Your task to perform on an android device: Play the last video I watched on Youtube Image 0: 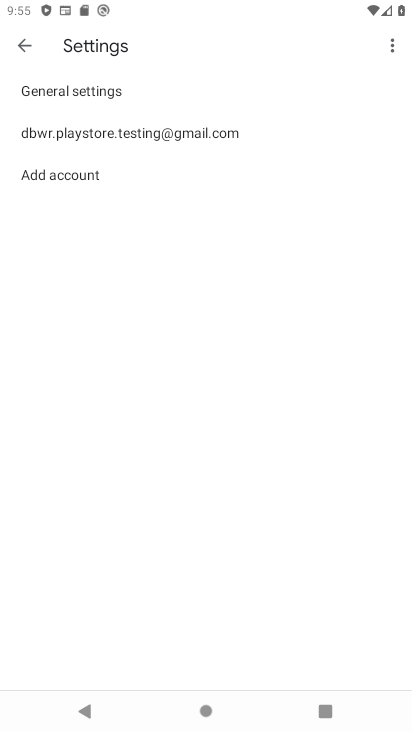
Step 0: press home button
Your task to perform on an android device: Play the last video I watched on Youtube Image 1: 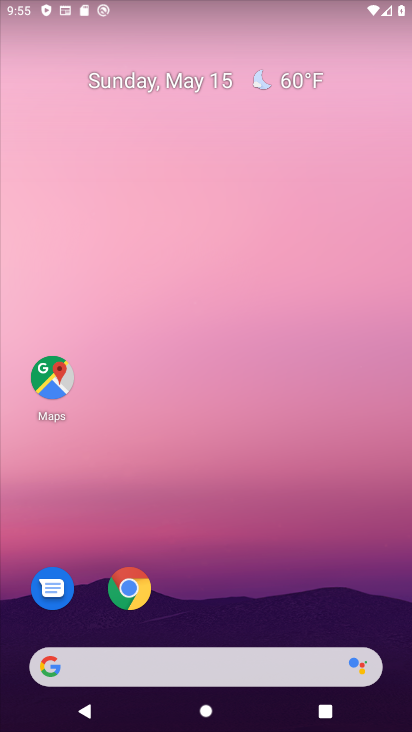
Step 1: drag from (218, 631) to (230, 135)
Your task to perform on an android device: Play the last video I watched on Youtube Image 2: 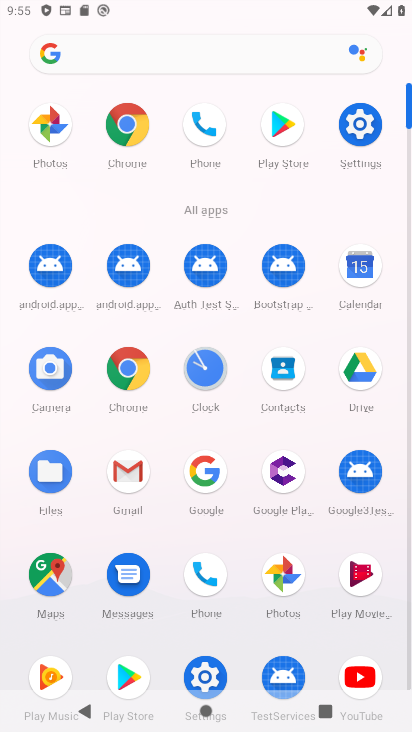
Step 2: click (368, 683)
Your task to perform on an android device: Play the last video I watched on Youtube Image 3: 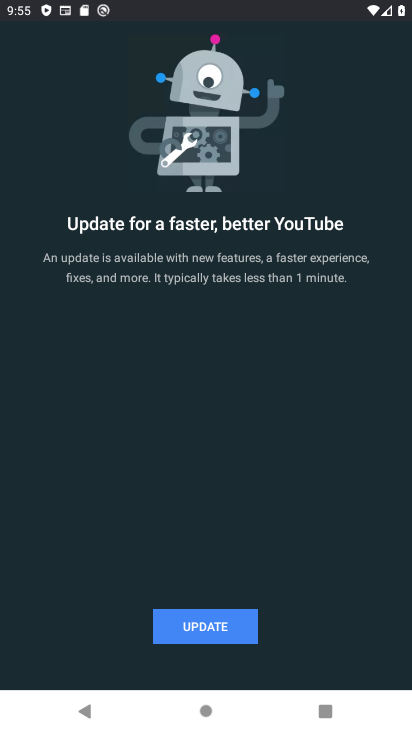
Step 3: click (200, 628)
Your task to perform on an android device: Play the last video I watched on Youtube Image 4: 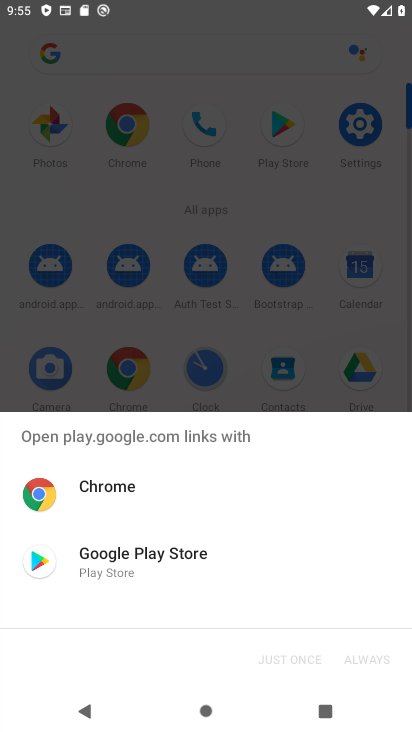
Step 4: click (231, 549)
Your task to perform on an android device: Play the last video I watched on Youtube Image 5: 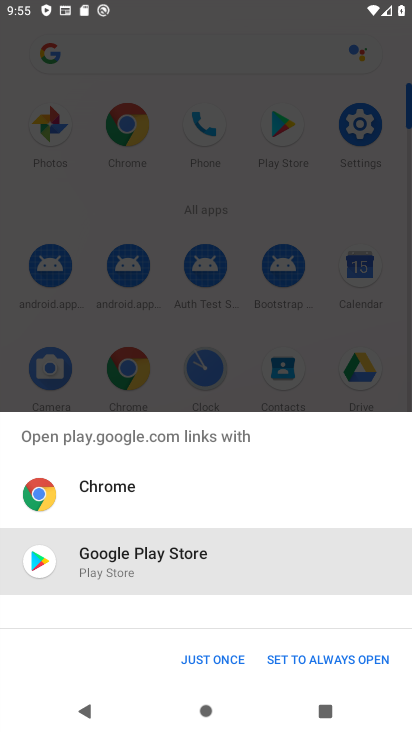
Step 5: click (221, 658)
Your task to perform on an android device: Play the last video I watched on Youtube Image 6: 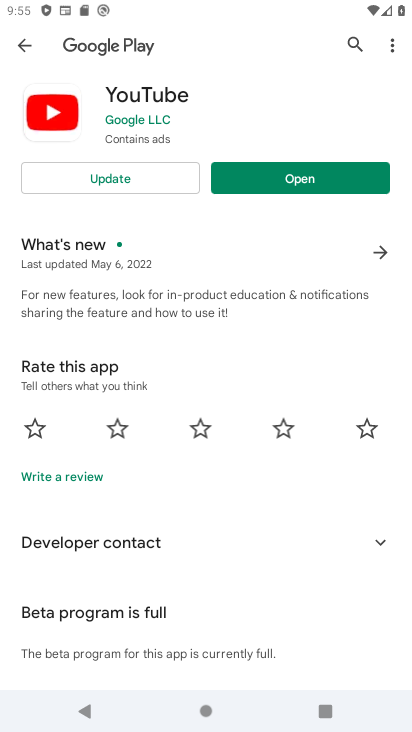
Step 6: click (161, 169)
Your task to perform on an android device: Play the last video I watched on Youtube Image 7: 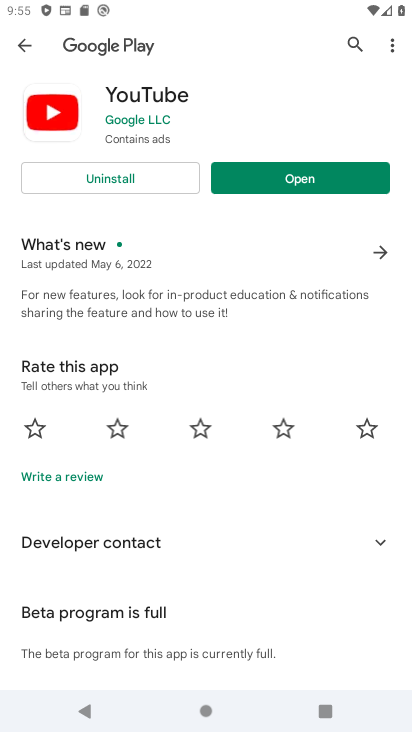
Step 7: click (357, 177)
Your task to perform on an android device: Play the last video I watched on Youtube Image 8: 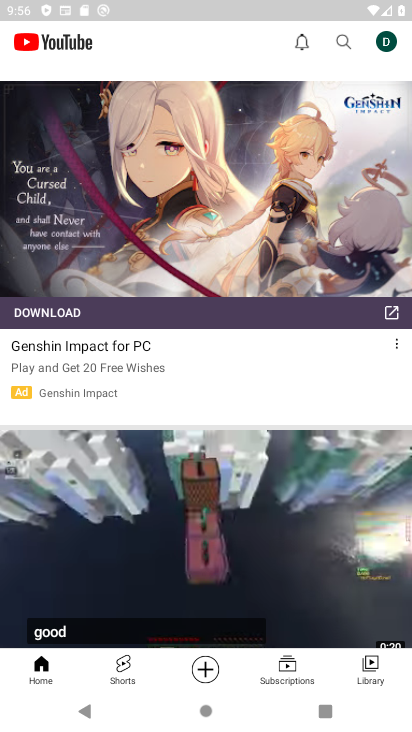
Step 8: task complete